Your task to perform on an android device: show emergency info Image 0: 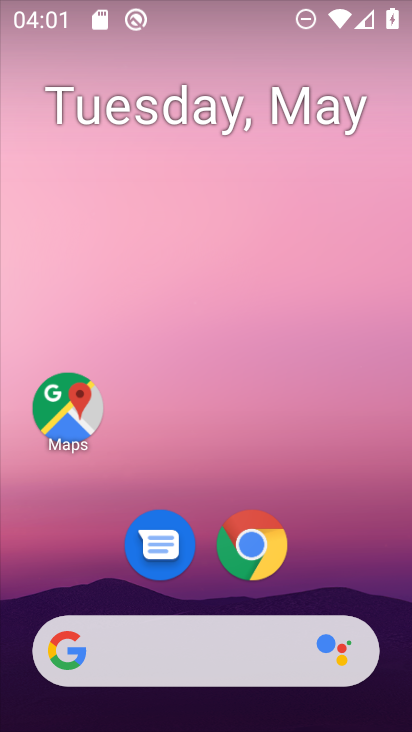
Step 0: drag from (399, 606) to (312, 131)
Your task to perform on an android device: show emergency info Image 1: 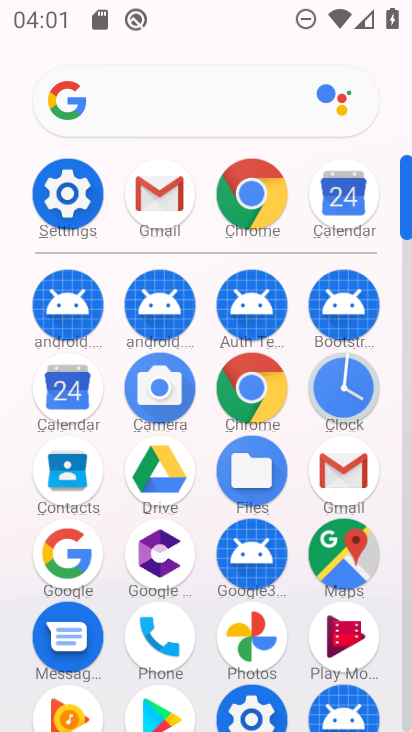
Step 1: click (405, 697)
Your task to perform on an android device: show emergency info Image 2: 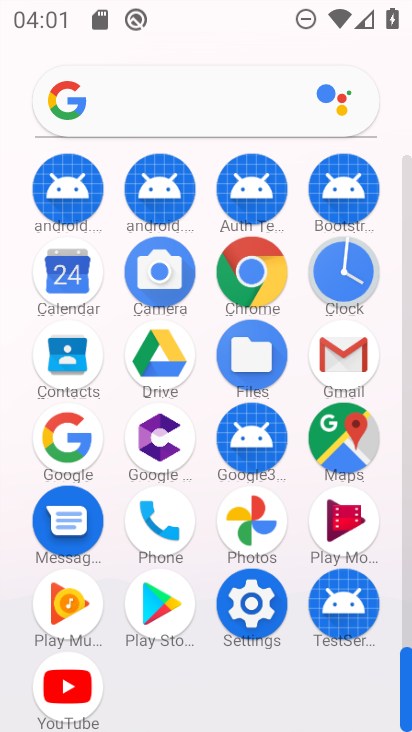
Step 2: click (255, 608)
Your task to perform on an android device: show emergency info Image 3: 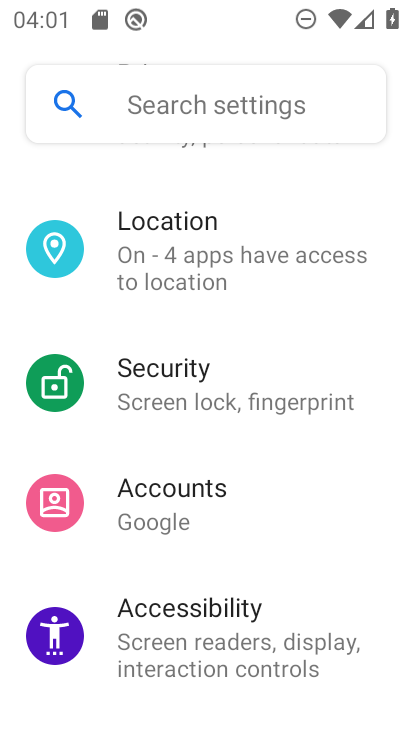
Step 3: drag from (348, 661) to (314, 169)
Your task to perform on an android device: show emergency info Image 4: 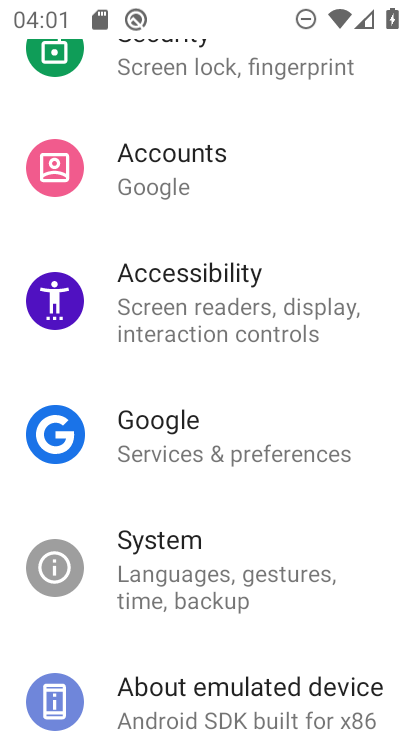
Step 4: click (165, 691)
Your task to perform on an android device: show emergency info Image 5: 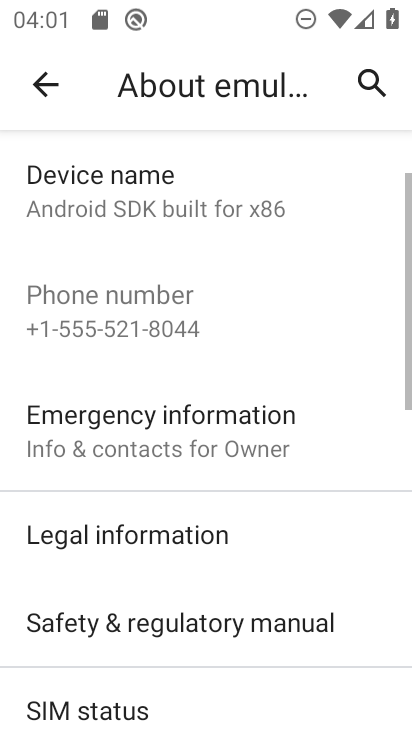
Step 5: click (71, 415)
Your task to perform on an android device: show emergency info Image 6: 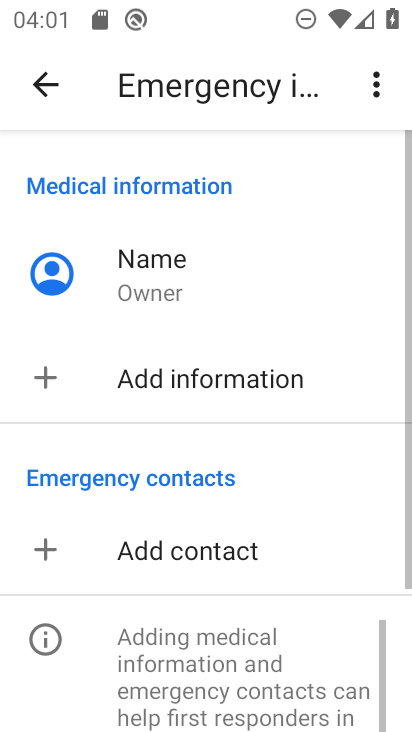
Step 6: task complete